Your task to perform on an android device: turn on wifi Image 0: 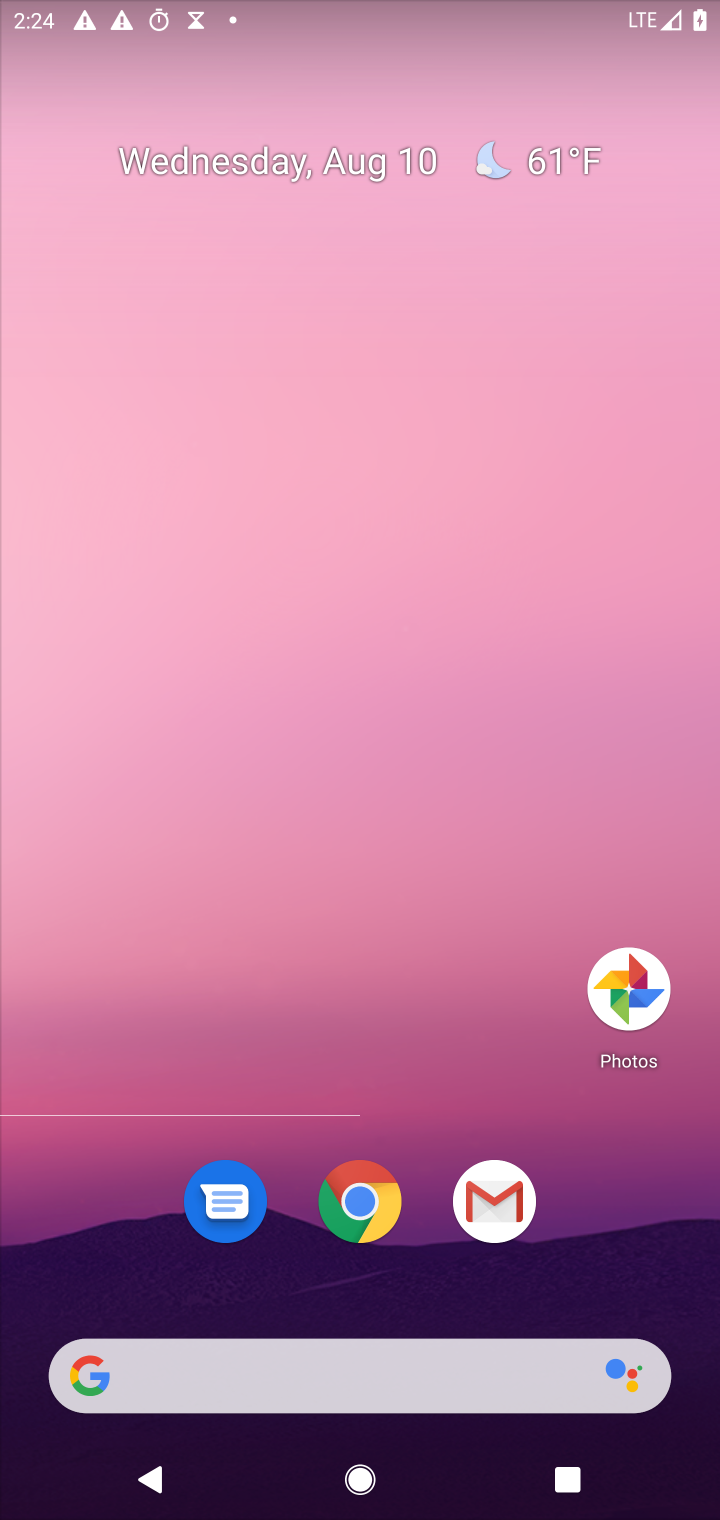
Step 0: drag from (366, 120) to (171, 1095)
Your task to perform on an android device: turn on wifi Image 1: 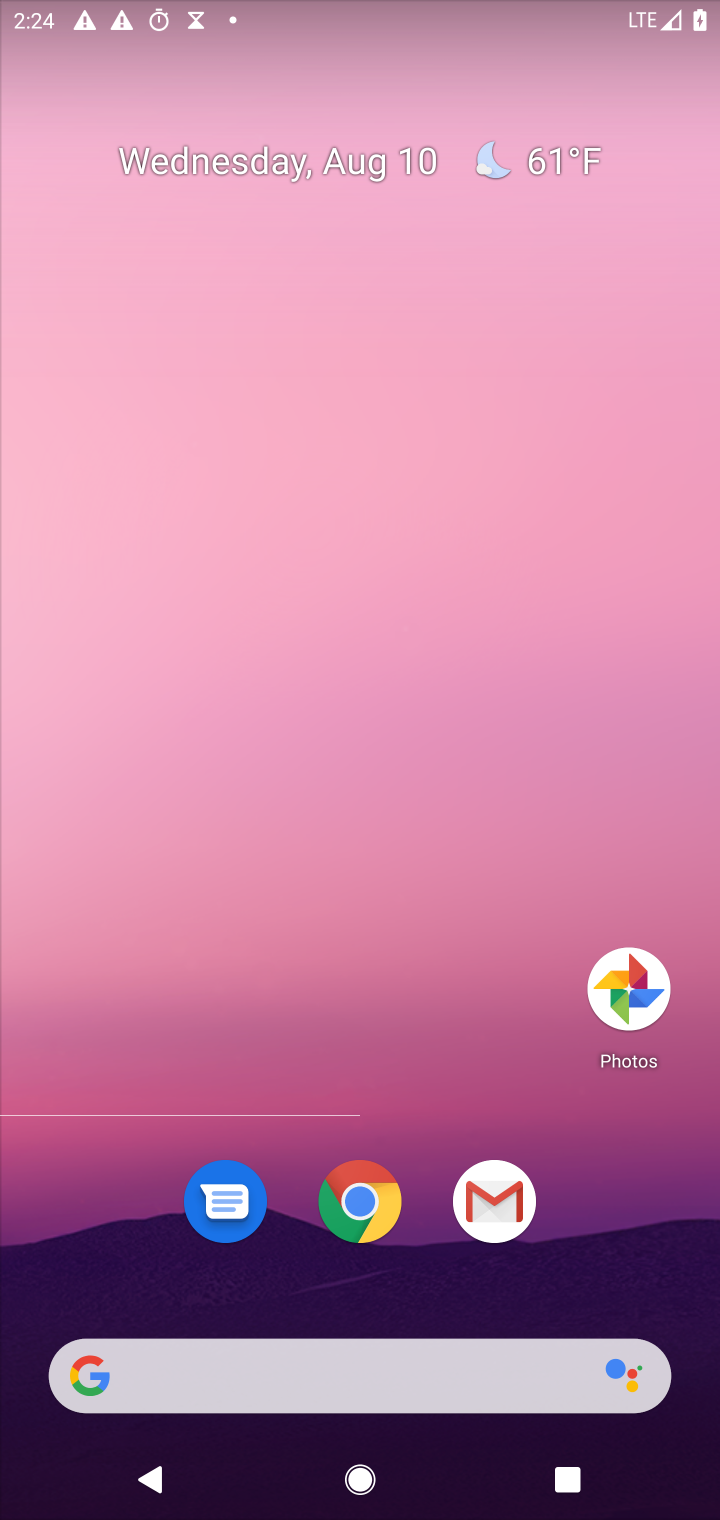
Step 1: drag from (359, 12) to (235, 1278)
Your task to perform on an android device: turn on wifi Image 2: 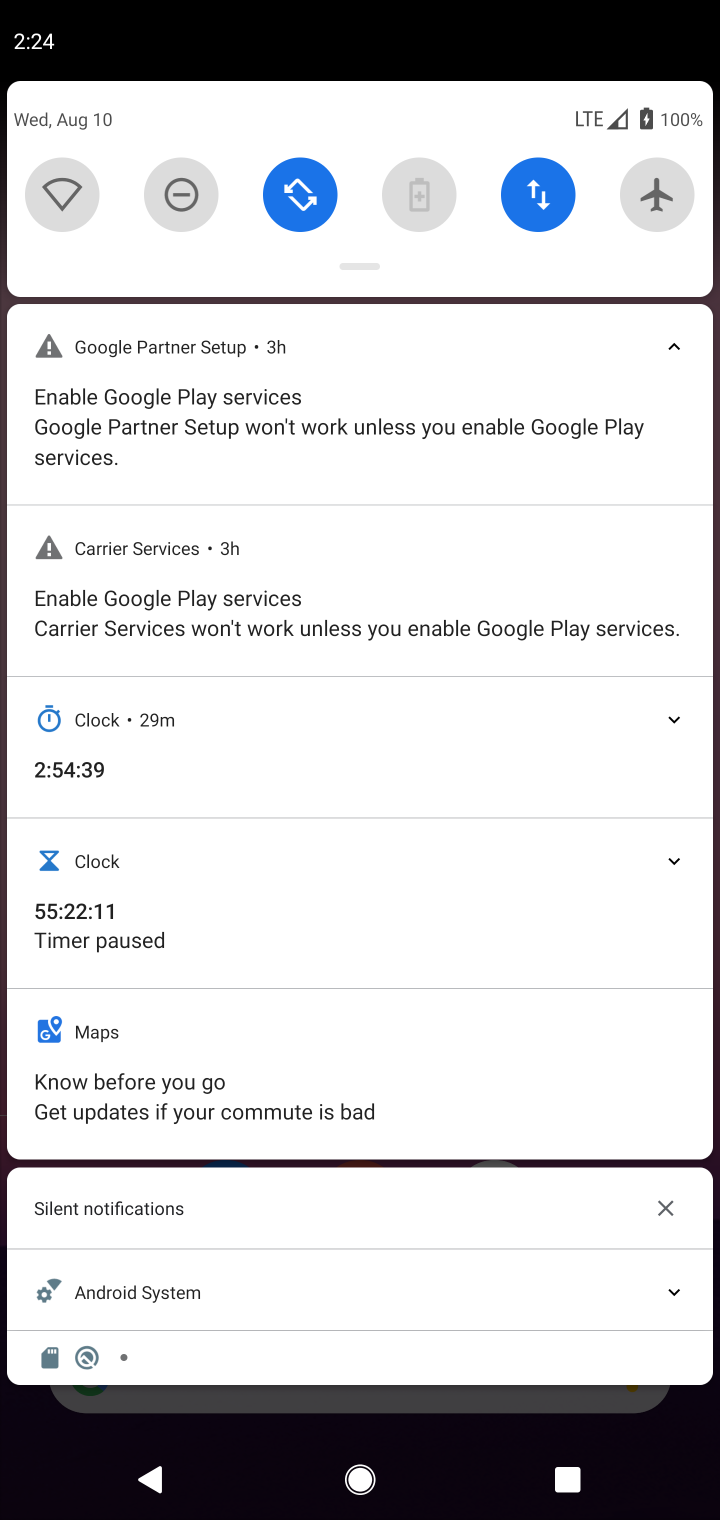
Step 2: click (54, 182)
Your task to perform on an android device: turn on wifi Image 3: 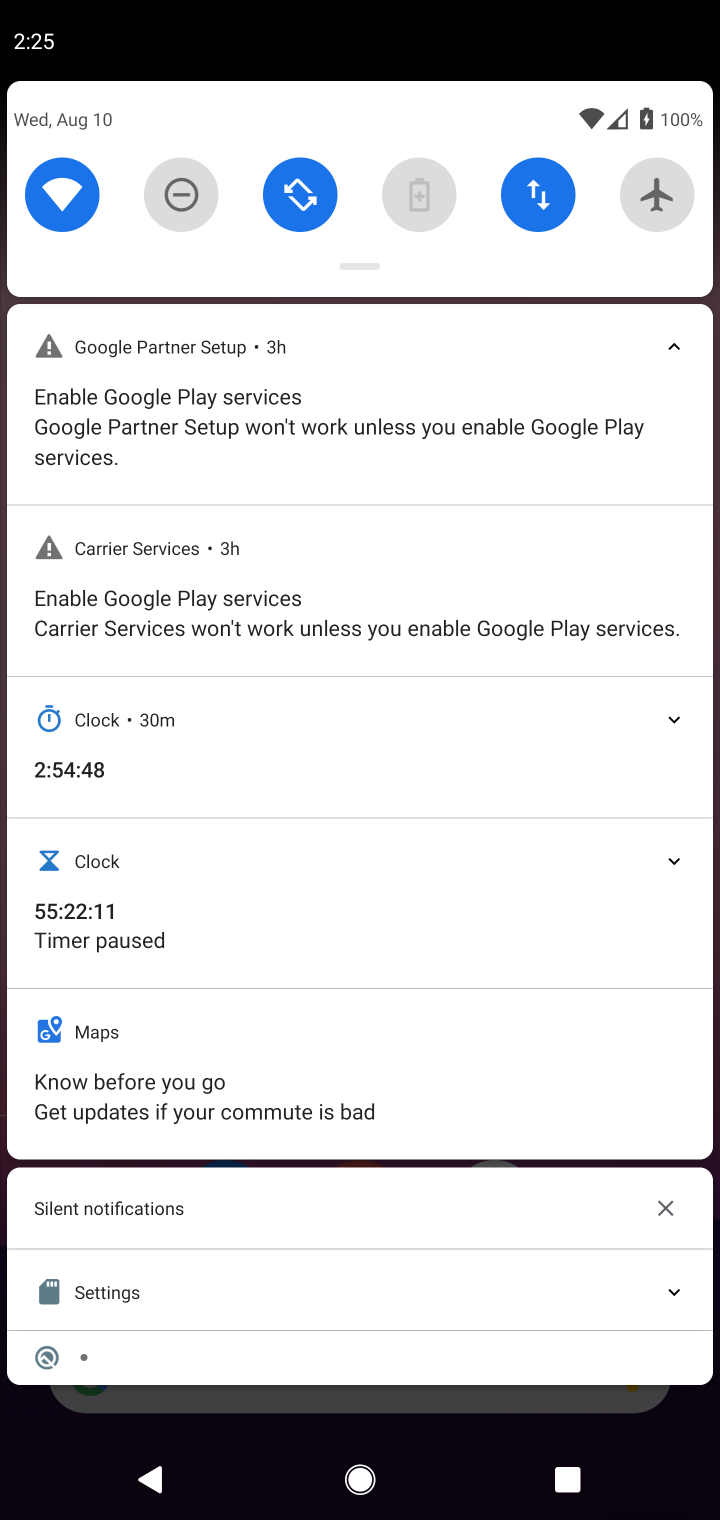
Step 3: task complete